Your task to perform on an android device: What's on my calendar tomorrow? Image 0: 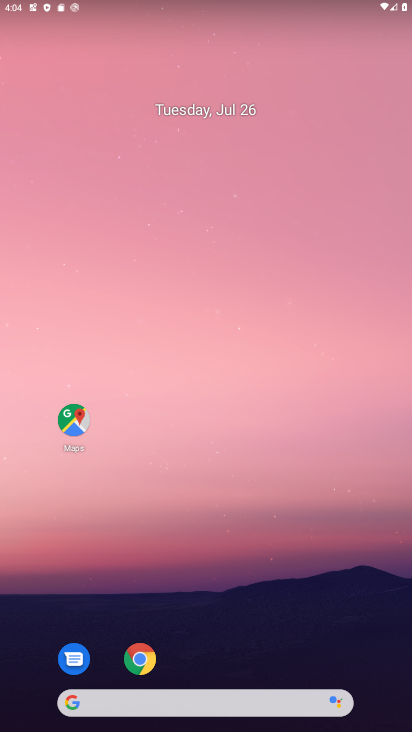
Step 0: drag from (262, 607) to (276, 9)
Your task to perform on an android device: What's on my calendar tomorrow? Image 1: 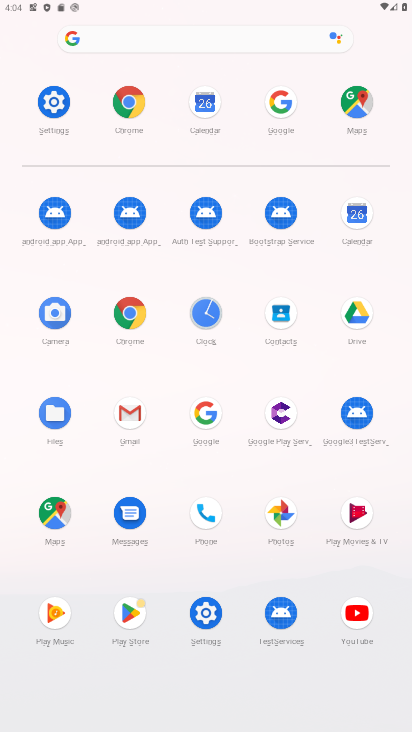
Step 1: click (354, 219)
Your task to perform on an android device: What's on my calendar tomorrow? Image 2: 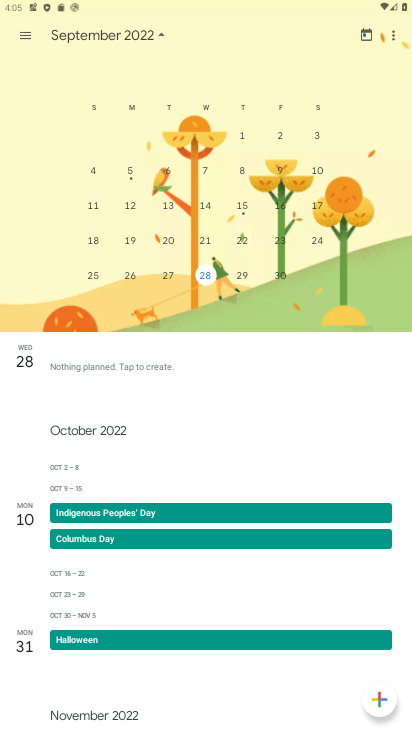
Step 2: click (244, 276)
Your task to perform on an android device: What's on my calendar tomorrow? Image 3: 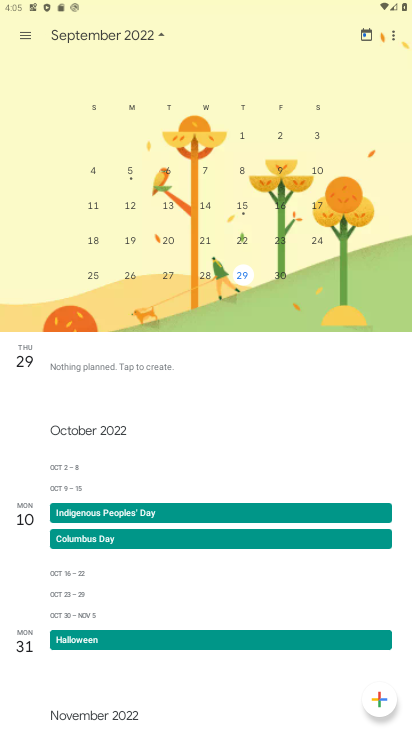
Step 3: task complete